Your task to perform on an android device: Open Yahoo.com Image 0: 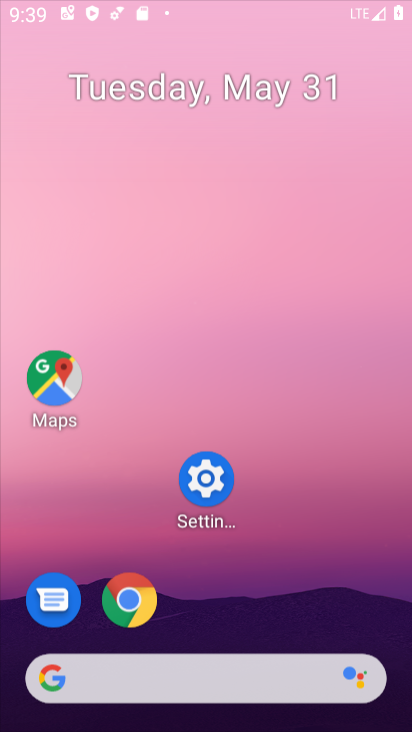
Step 0: press home button
Your task to perform on an android device: Open Yahoo.com Image 1: 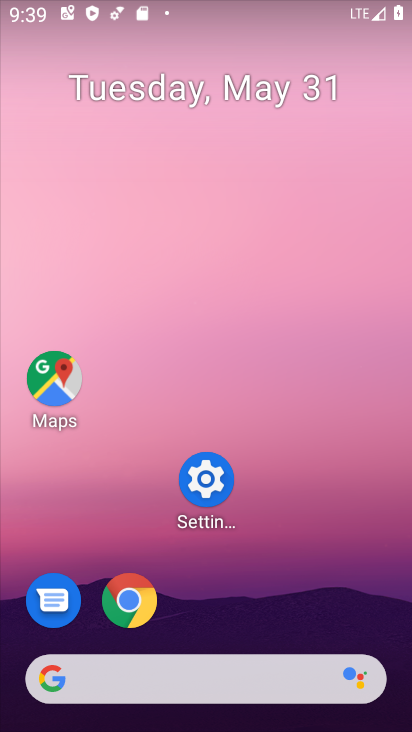
Step 1: click (131, 587)
Your task to perform on an android device: Open Yahoo.com Image 2: 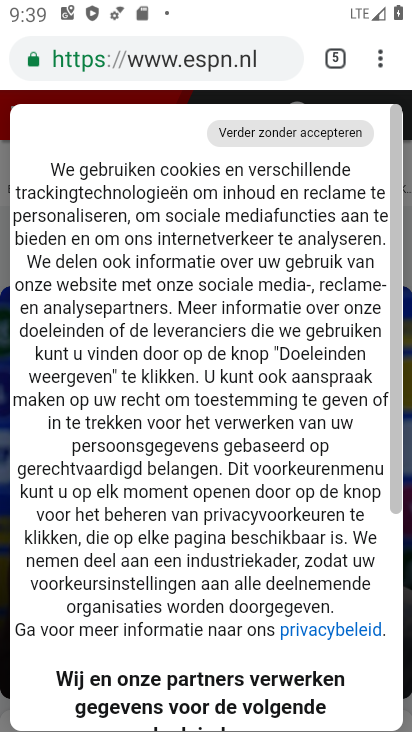
Step 2: click (330, 67)
Your task to perform on an android device: Open Yahoo.com Image 3: 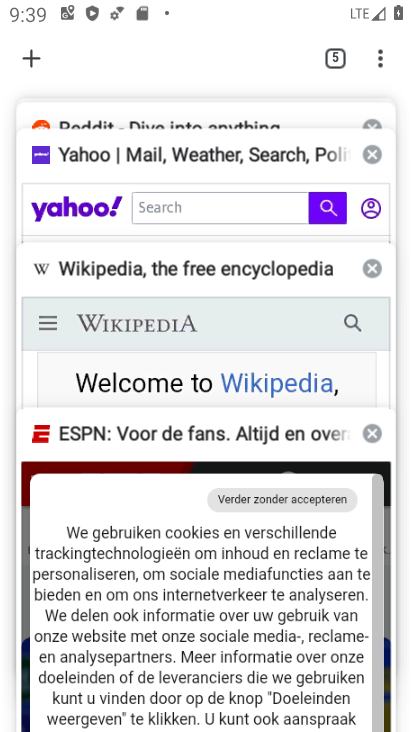
Step 3: click (29, 65)
Your task to perform on an android device: Open Yahoo.com Image 4: 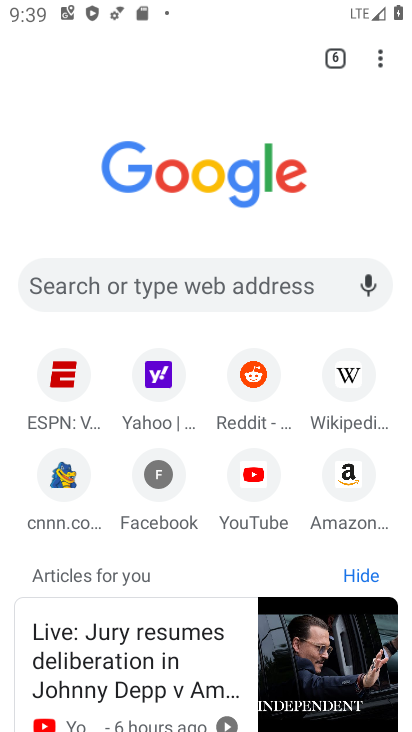
Step 4: click (158, 378)
Your task to perform on an android device: Open Yahoo.com Image 5: 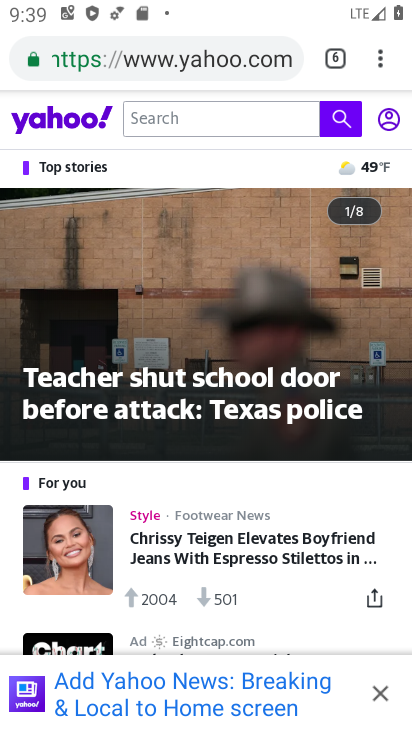
Step 5: task complete